Your task to perform on an android device: Open Google Chrome and open the bookmarks view Image 0: 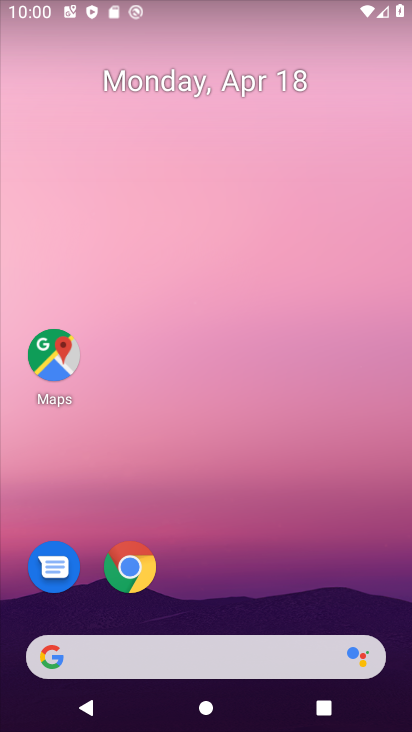
Step 0: click (120, 577)
Your task to perform on an android device: Open Google Chrome and open the bookmarks view Image 1: 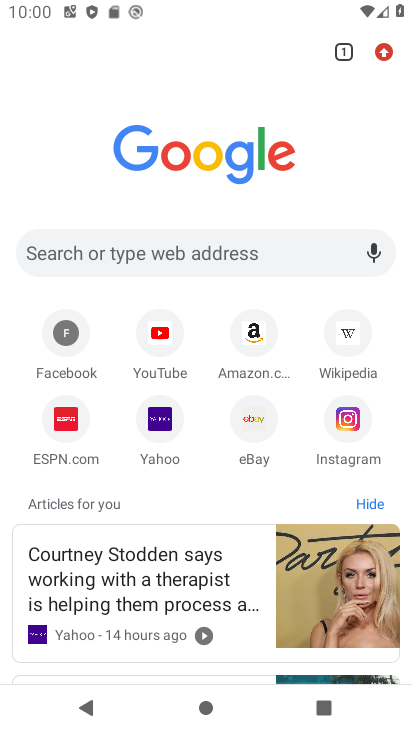
Step 1: click (385, 56)
Your task to perform on an android device: Open Google Chrome and open the bookmarks view Image 2: 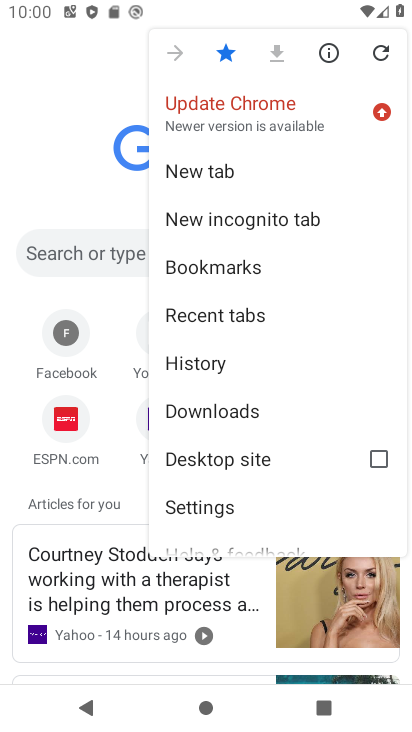
Step 2: click (201, 267)
Your task to perform on an android device: Open Google Chrome and open the bookmarks view Image 3: 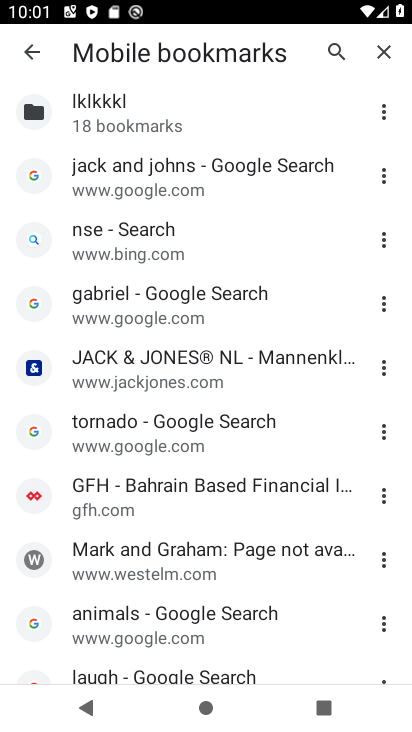
Step 3: task complete